Your task to perform on an android device: Open Yahoo.com Image 0: 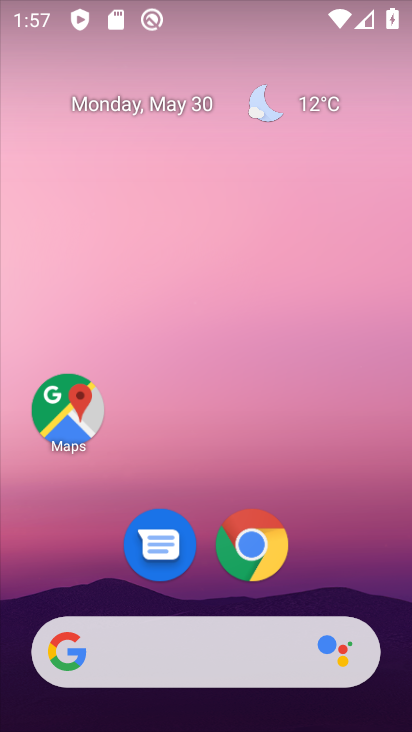
Step 0: click (252, 550)
Your task to perform on an android device: Open Yahoo.com Image 1: 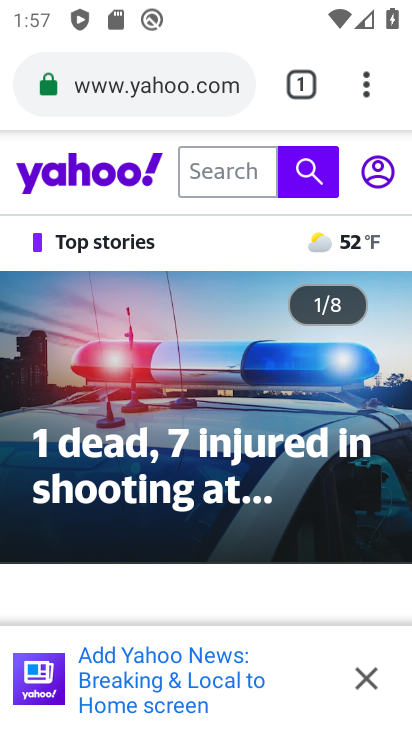
Step 1: task complete